Your task to perform on an android device: set the stopwatch Image 0: 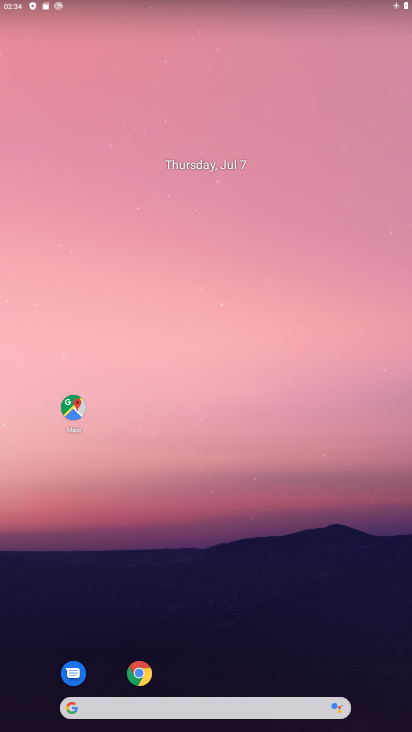
Step 0: click (184, 269)
Your task to perform on an android device: set the stopwatch Image 1: 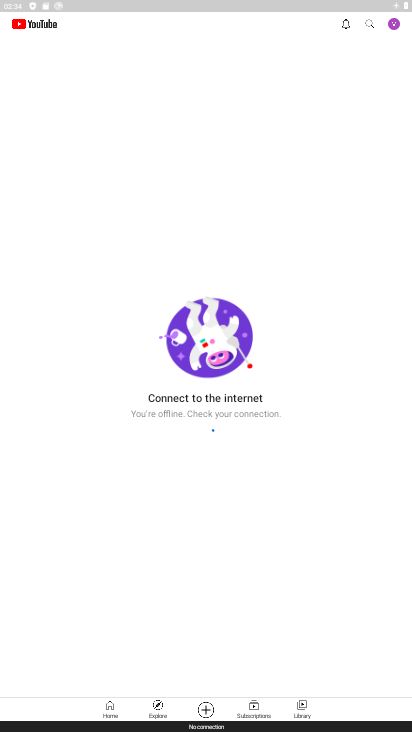
Step 1: press home button
Your task to perform on an android device: set the stopwatch Image 2: 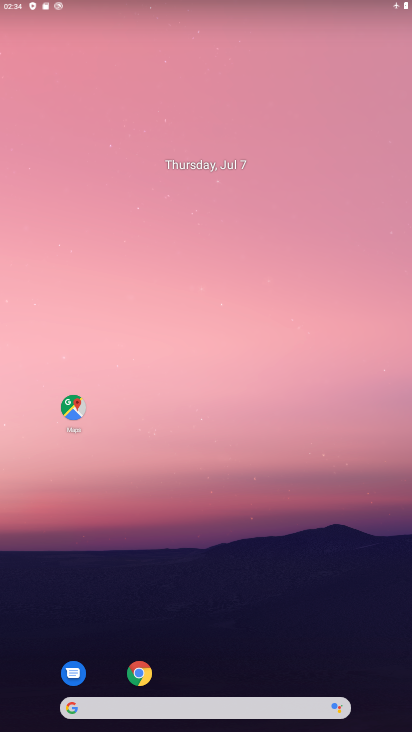
Step 2: drag from (195, 663) to (195, 194)
Your task to perform on an android device: set the stopwatch Image 3: 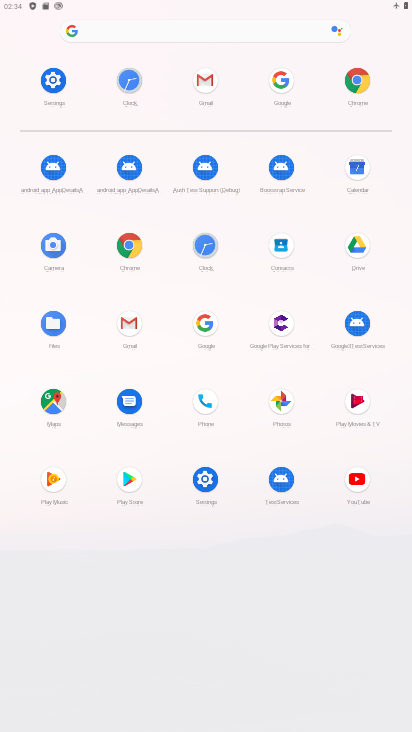
Step 3: click (135, 83)
Your task to perform on an android device: set the stopwatch Image 4: 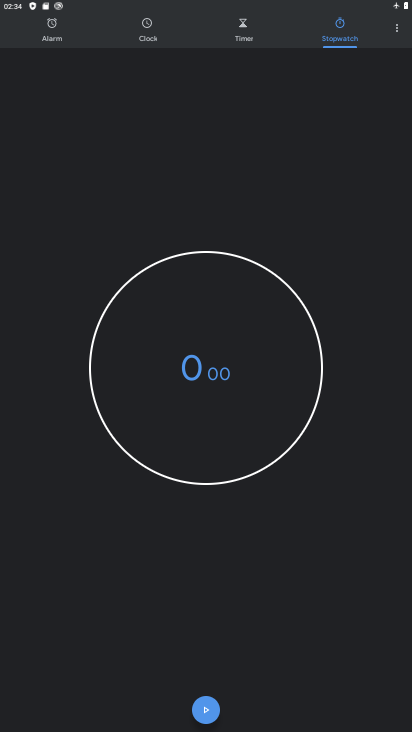
Step 4: click (211, 715)
Your task to perform on an android device: set the stopwatch Image 5: 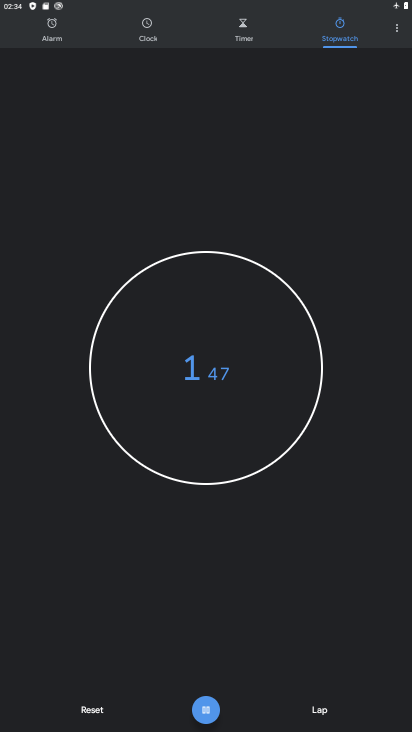
Step 5: task complete